Your task to perform on an android device: change notifications settings Image 0: 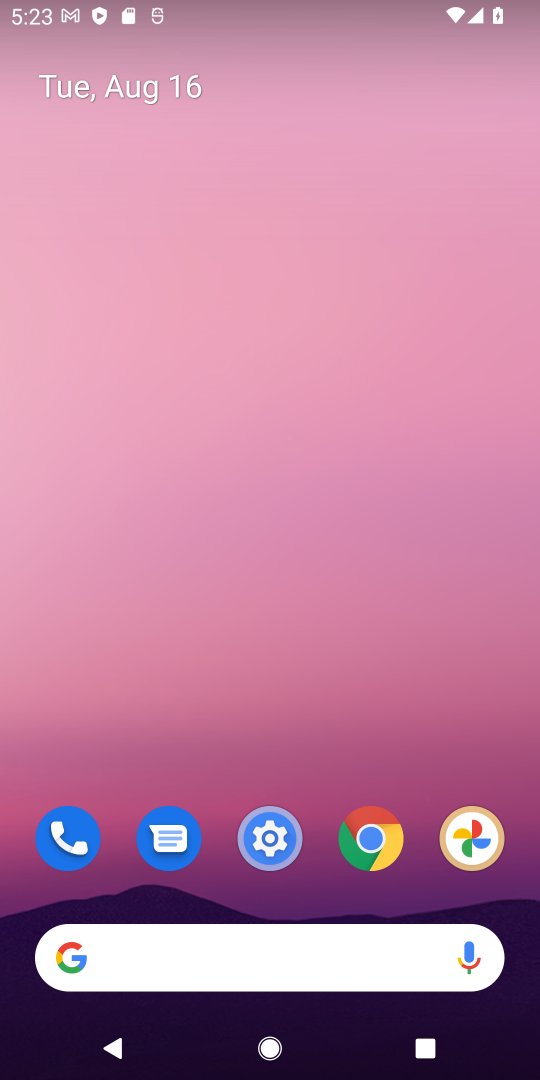
Step 0: click (260, 838)
Your task to perform on an android device: change notifications settings Image 1: 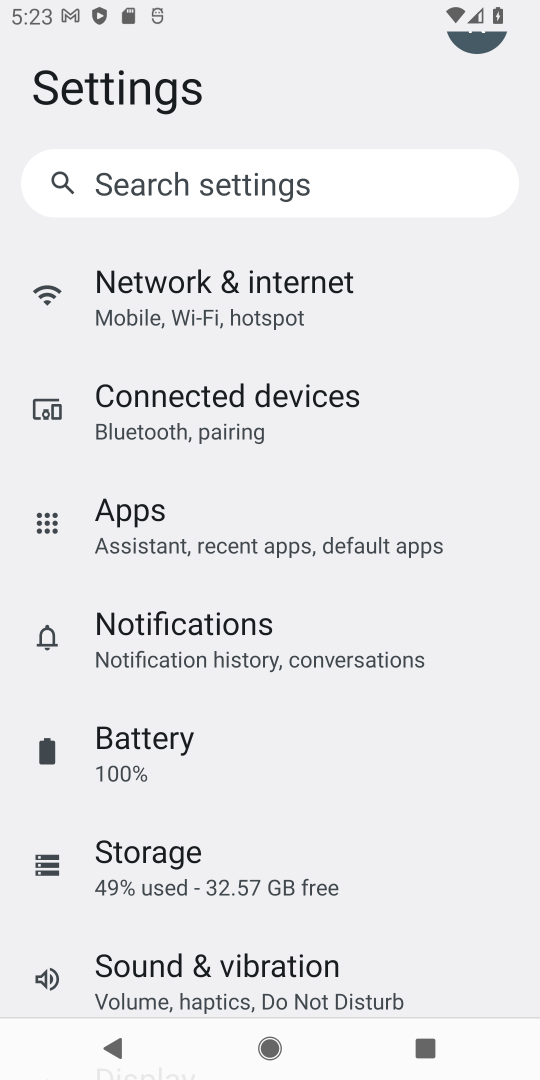
Step 1: click (227, 630)
Your task to perform on an android device: change notifications settings Image 2: 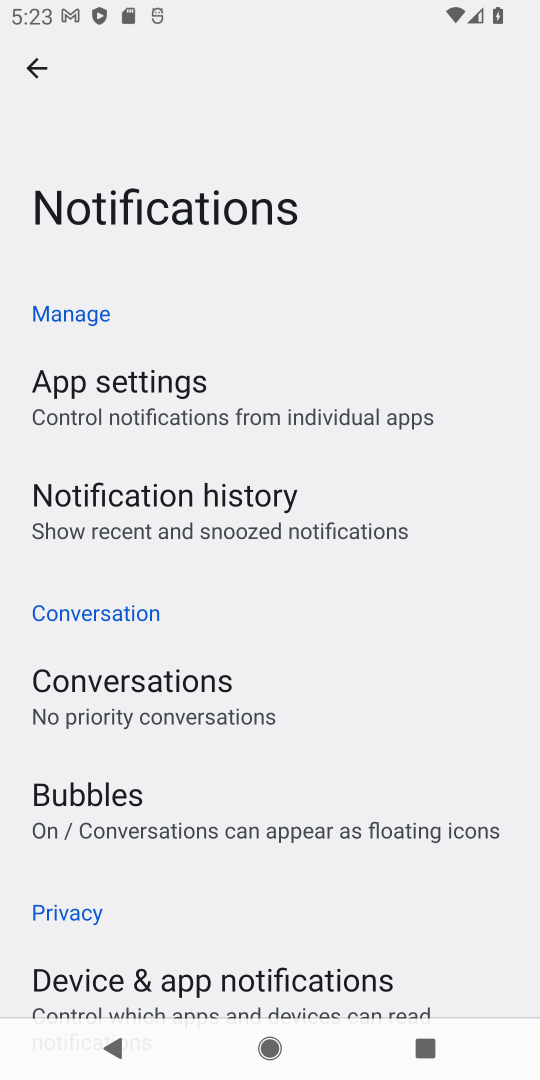
Step 2: drag from (179, 925) to (349, 24)
Your task to perform on an android device: change notifications settings Image 3: 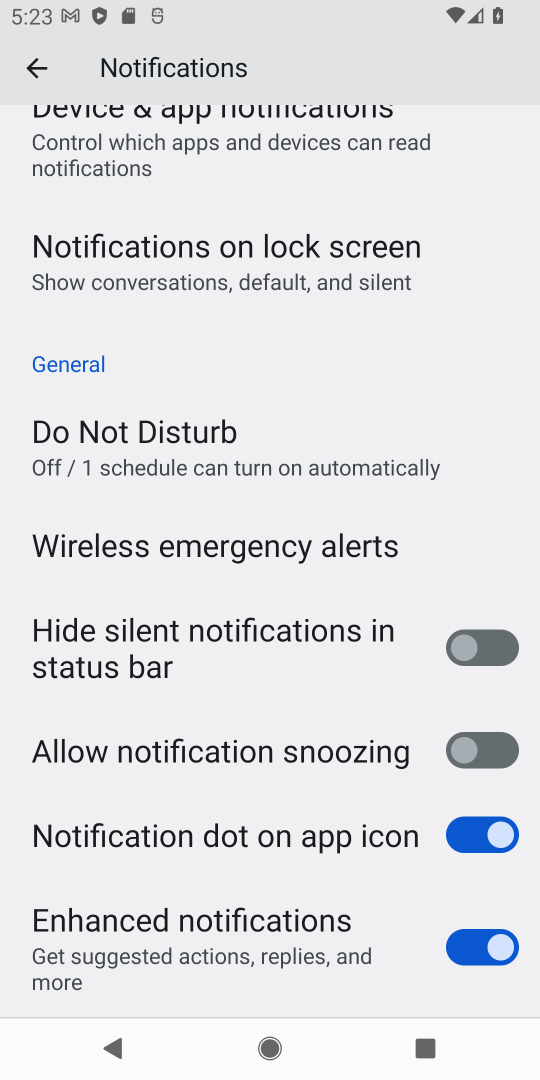
Step 3: click (476, 761)
Your task to perform on an android device: change notifications settings Image 4: 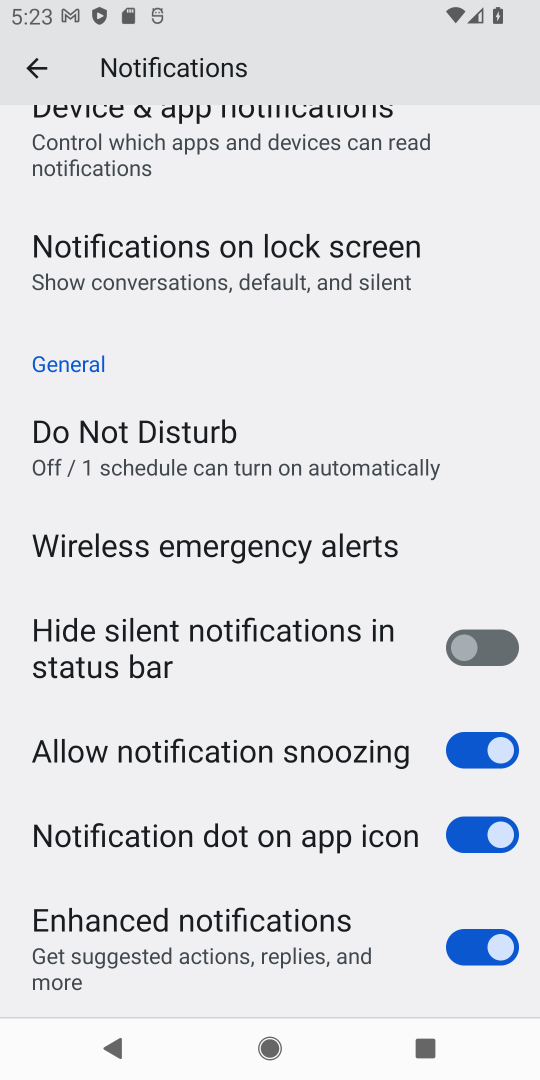
Step 4: task complete